Your task to perform on an android device: refresh tabs in the chrome app Image 0: 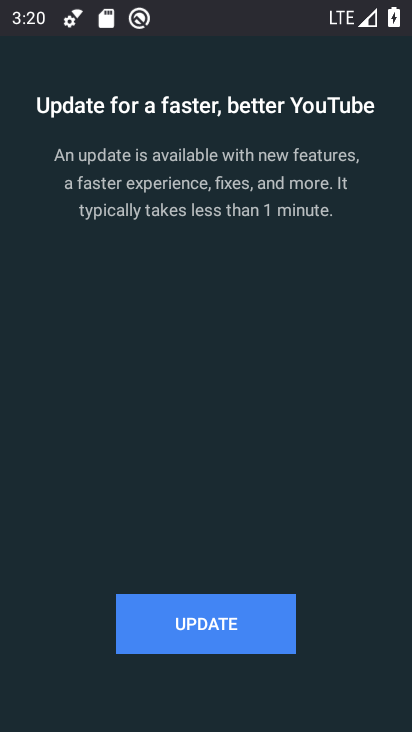
Step 0: press home button
Your task to perform on an android device: refresh tabs in the chrome app Image 1: 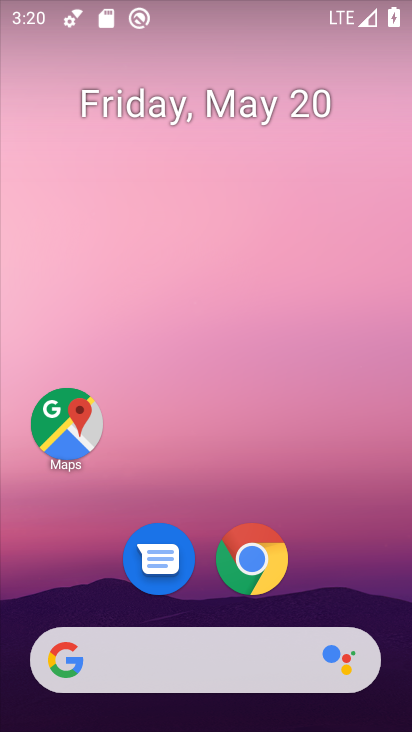
Step 1: click (264, 566)
Your task to perform on an android device: refresh tabs in the chrome app Image 2: 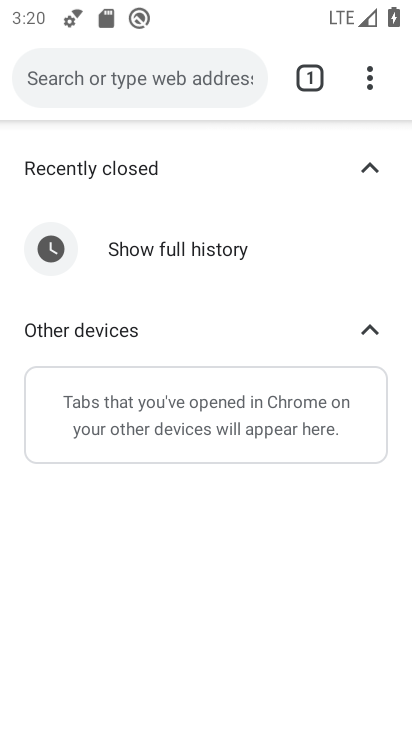
Step 2: click (368, 72)
Your task to perform on an android device: refresh tabs in the chrome app Image 3: 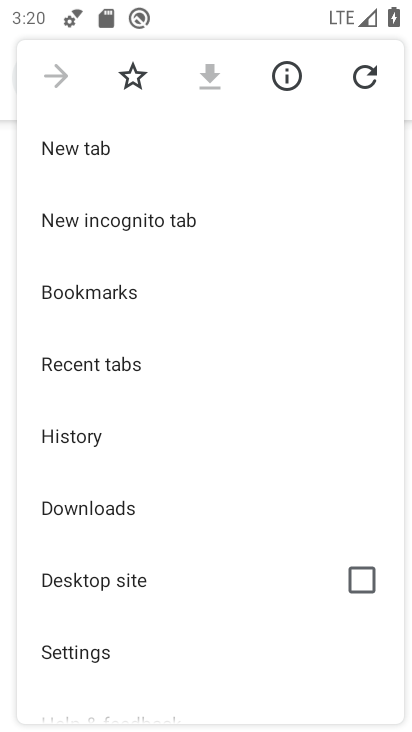
Step 3: click (368, 72)
Your task to perform on an android device: refresh tabs in the chrome app Image 4: 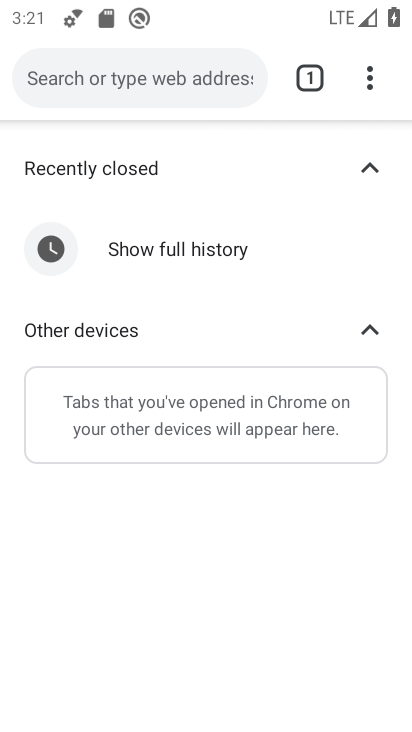
Step 4: task complete